Your task to perform on an android device: toggle airplane mode Image 0: 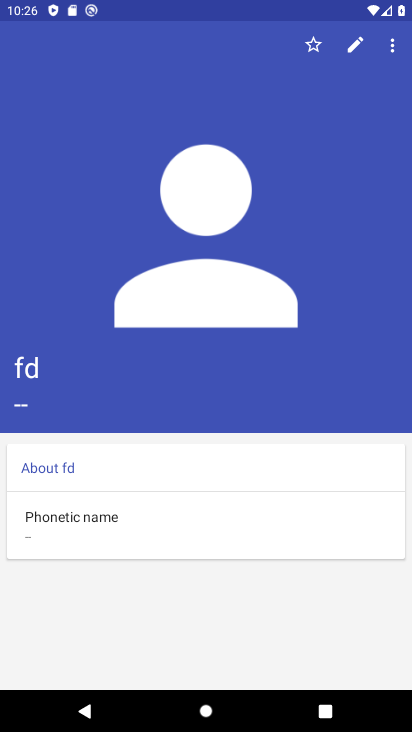
Step 0: press home button
Your task to perform on an android device: toggle airplane mode Image 1: 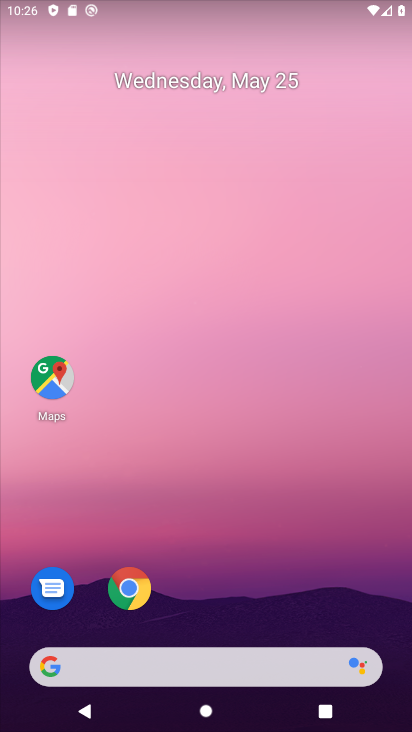
Step 1: drag from (327, 455) to (240, 57)
Your task to perform on an android device: toggle airplane mode Image 2: 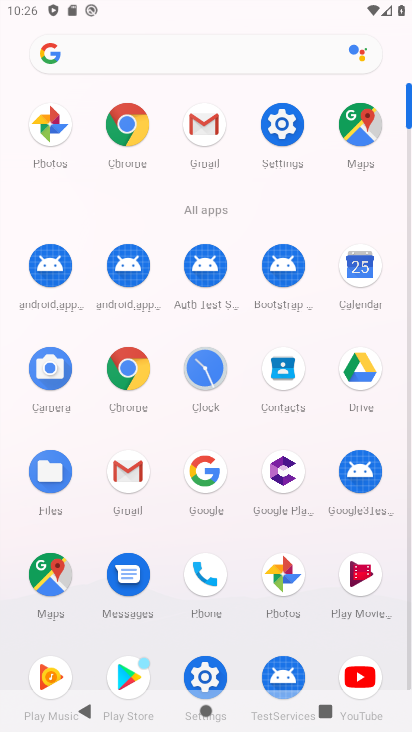
Step 2: click (281, 118)
Your task to perform on an android device: toggle airplane mode Image 3: 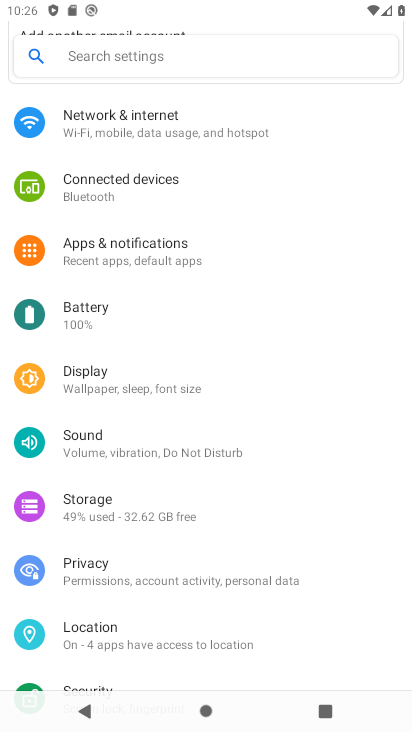
Step 3: drag from (142, 158) to (142, 509)
Your task to perform on an android device: toggle airplane mode Image 4: 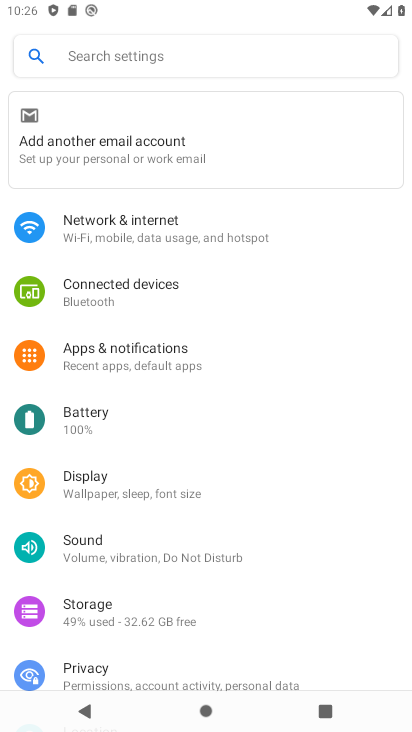
Step 4: click (173, 233)
Your task to perform on an android device: toggle airplane mode Image 5: 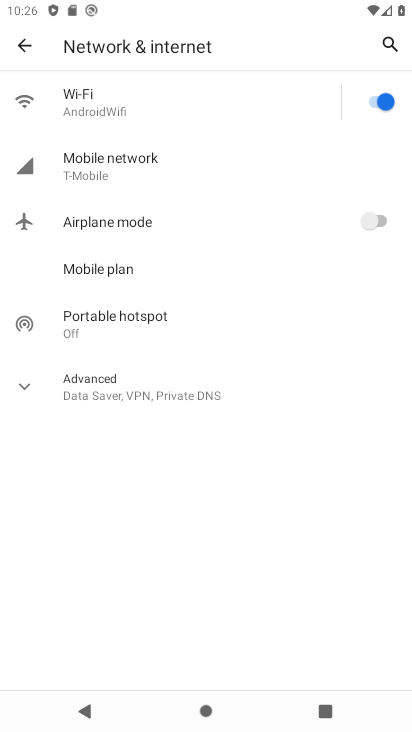
Step 5: click (348, 221)
Your task to perform on an android device: toggle airplane mode Image 6: 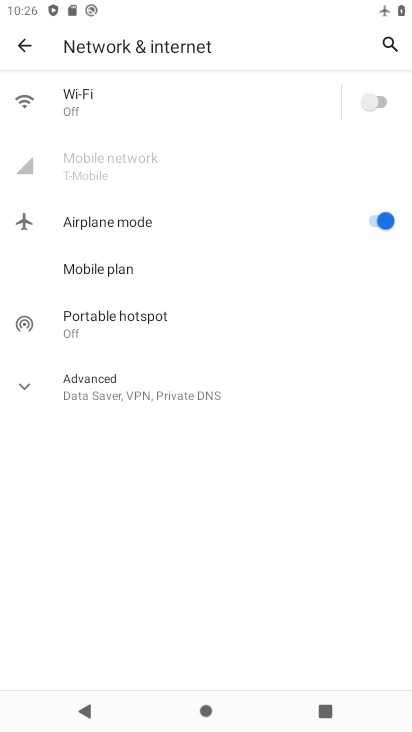
Step 6: task complete